Your task to perform on an android device: set the stopwatch Image 0: 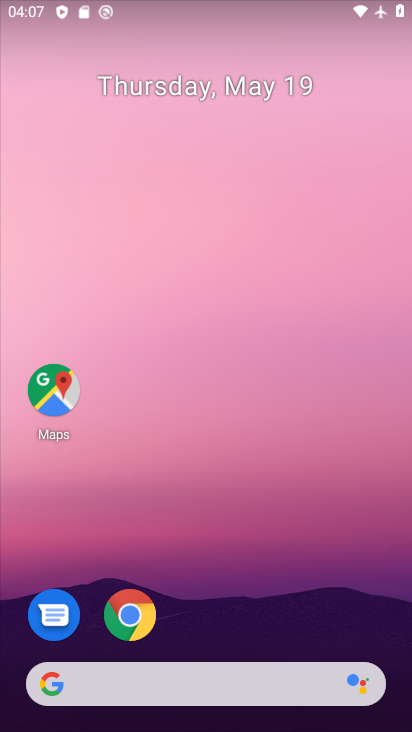
Step 0: drag from (275, 627) to (263, 7)
Your task to perform on an android device: set the stopwatch Image 1: 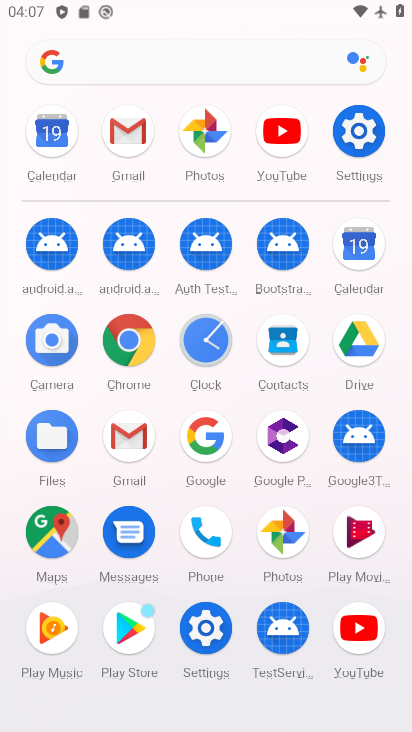
Step 1: click (205, 342)
Your task to perform on an android device: set the stopwatch Image 2: 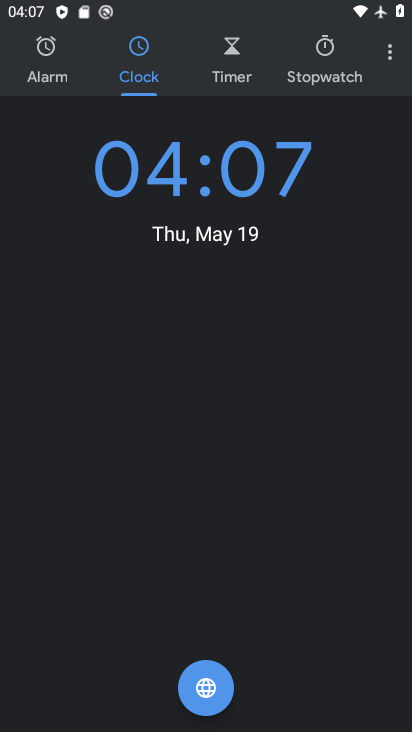
Step 2: click (325, 76)
Your task to perform on an android device: set the stopwatch Image 3: 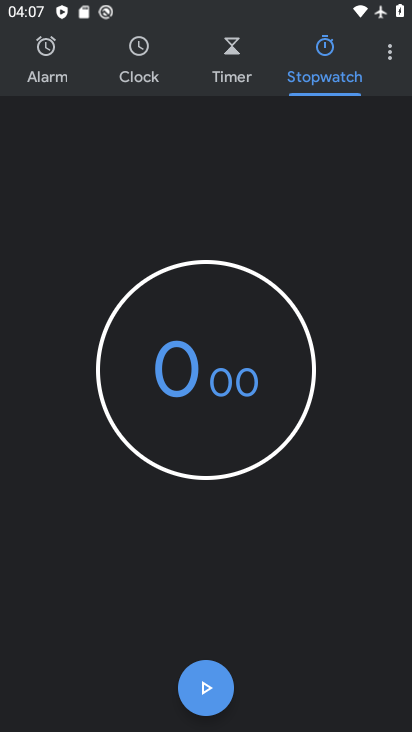
Step 3: click (211, 706)
Your task to perform on an android device: set the stopwatch Image 4: 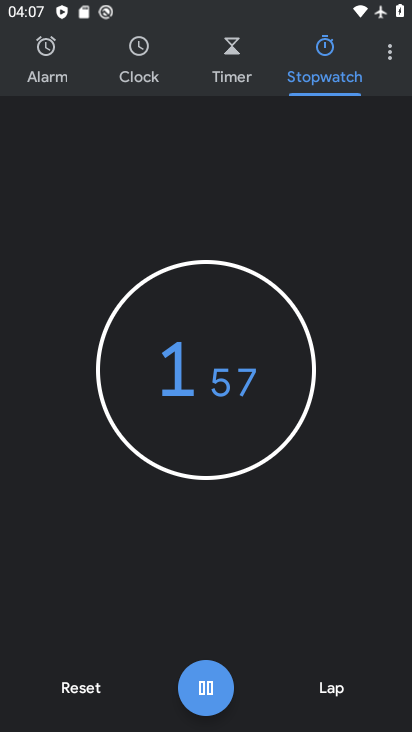
Step 4: click (210, 691)
Your task to perform on an android device: set the stopwatch Image 5: 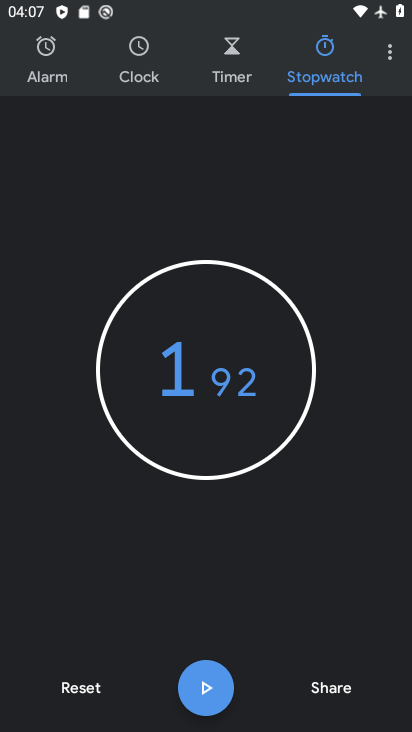
Step 5: task complete